Your task to perform on an android device: Search for corsair k70 on amazon.com, select the first entry, add it to the cart, then select checkout. Image 0: 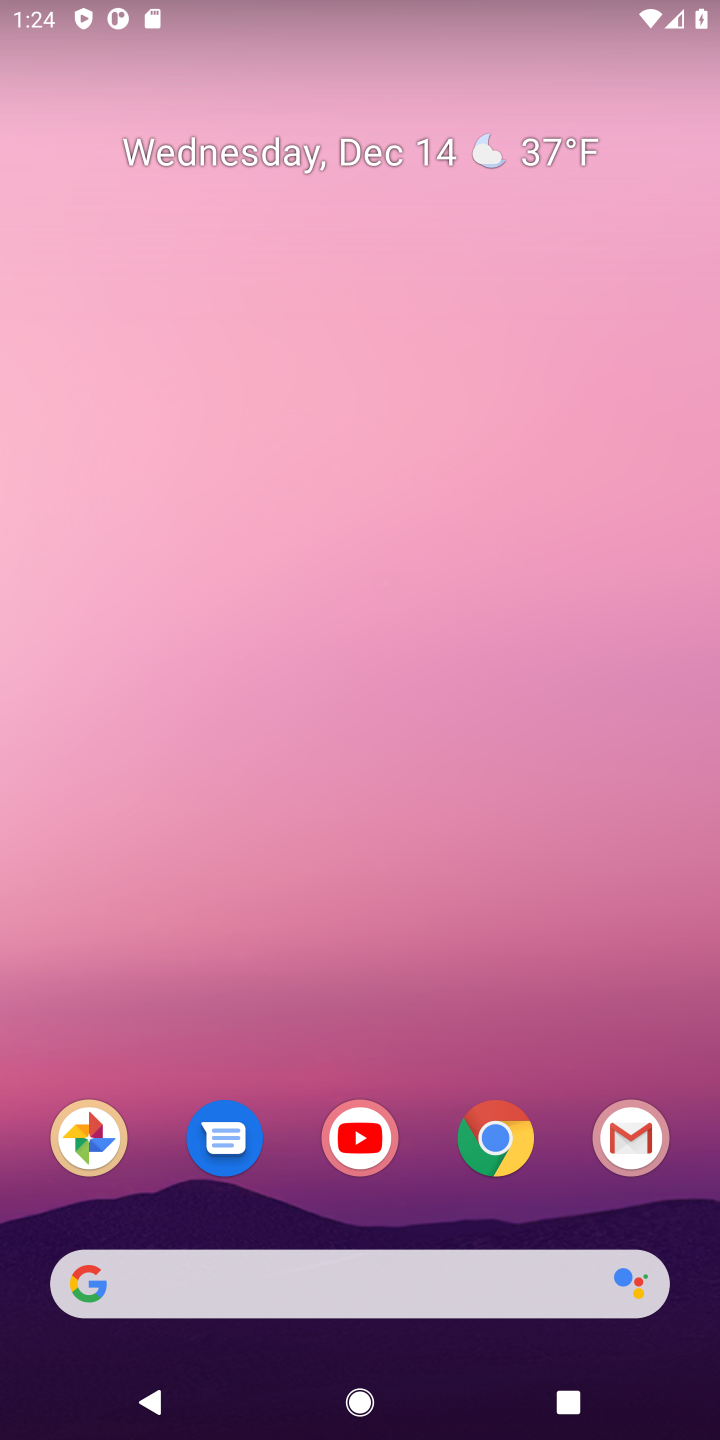
Step 0: click (498, 1142)
Your task to perform on an android device: Search for corsair k70 on amazon.com, select the first entry, add it to the cart, then select checkout. Image 1: 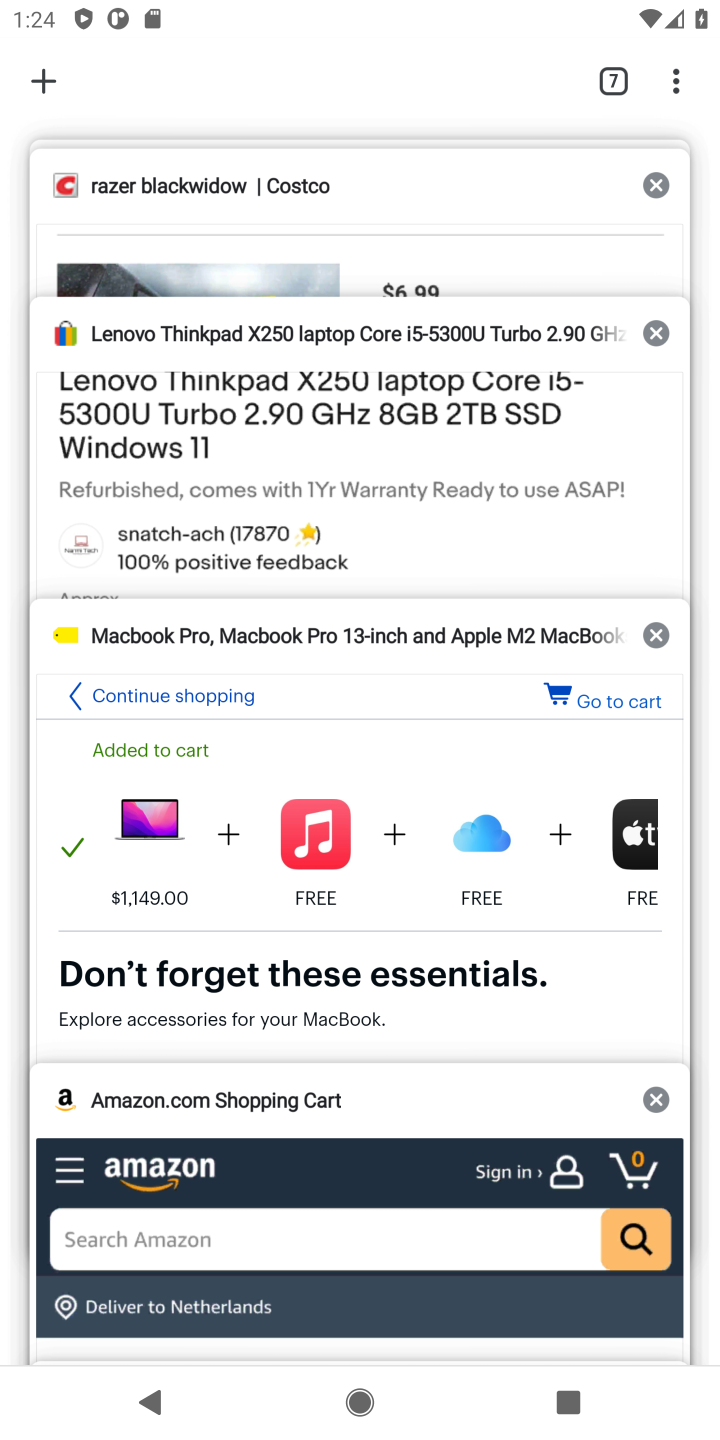
Step 1: click (402, 1208)
Your task to perform on an android device: Search for corsair k70 on amazon.com, select the first entry, add it to the cart, then select checkout. Image 2: 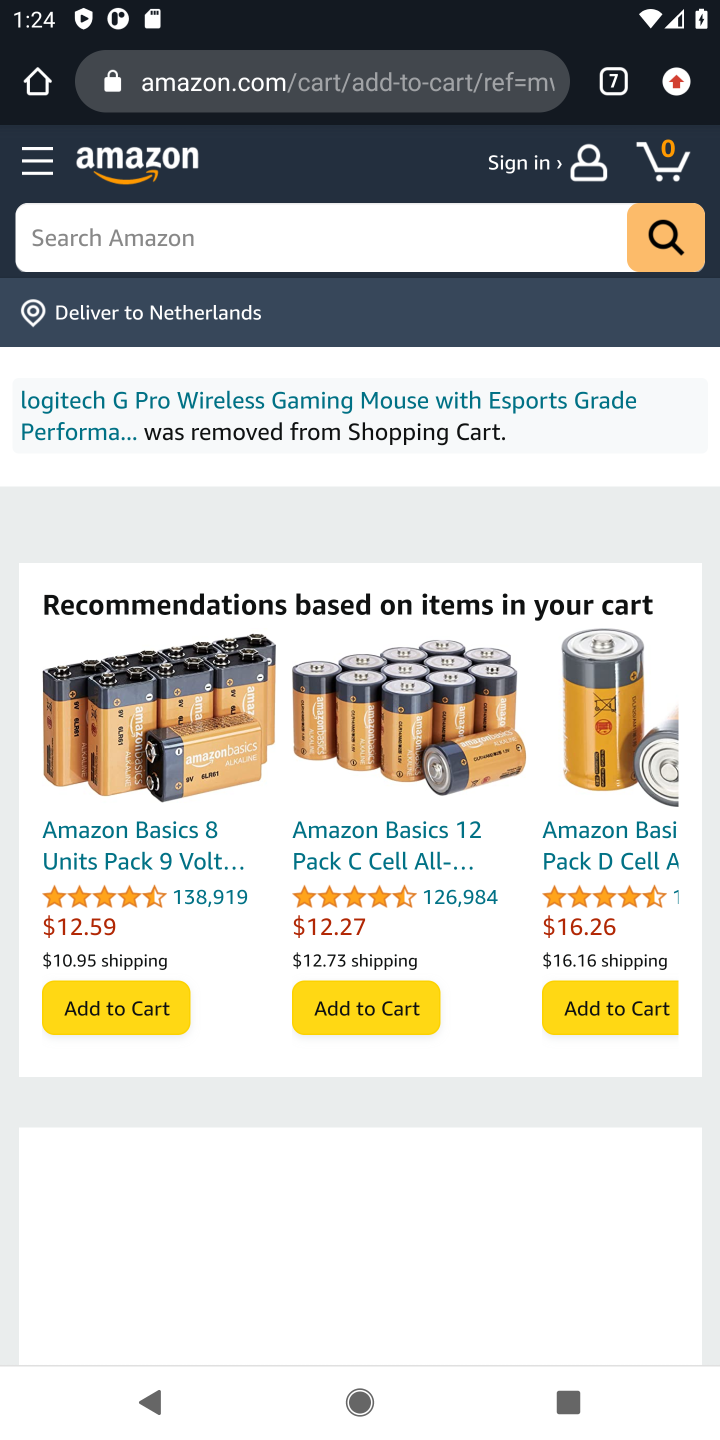
Step 2: click (85, 232)
Your task to perform on an android device: Search for corsair k70 on amazon.com, select the first entry, add it to the cart, then select checkout. Image 3: 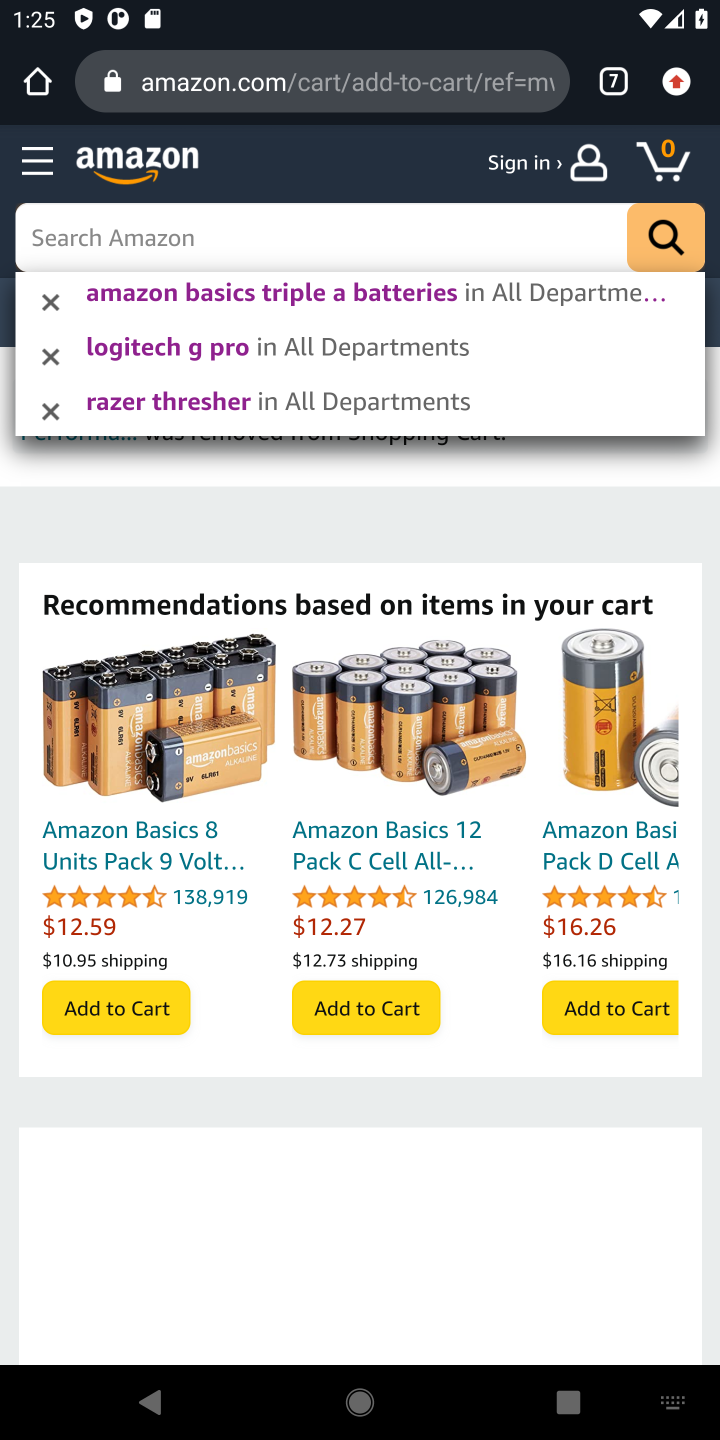
Step 3: type "corsair k70"
Your task to perform on an android device: Search for corsair k70 on amazon.com, select the first entry, add it to the cart, then select checkout. Image 4: 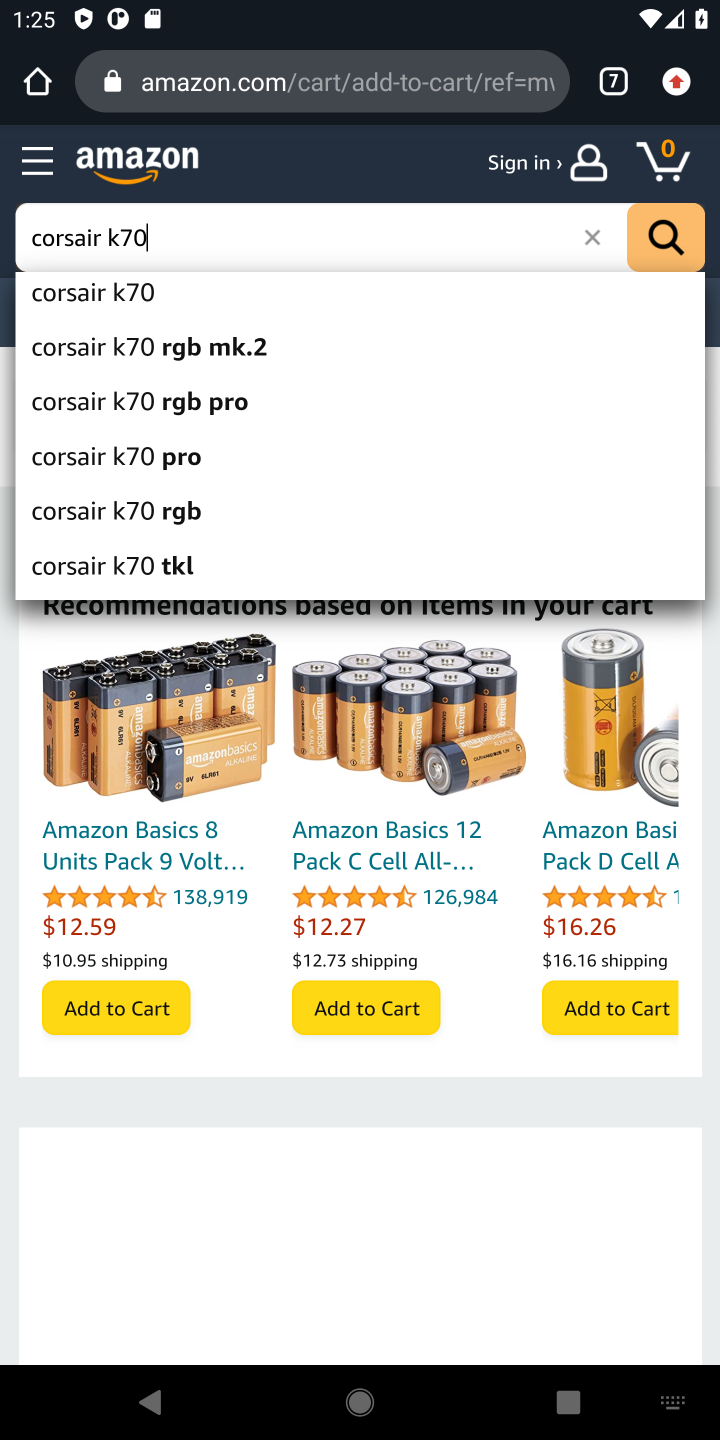
Step 4: click (128, 280)
Your task to perform on an android device: Search for corsair k70 on amazon.com, select the first entry, add it to the cart, then select checkout. Image 5: 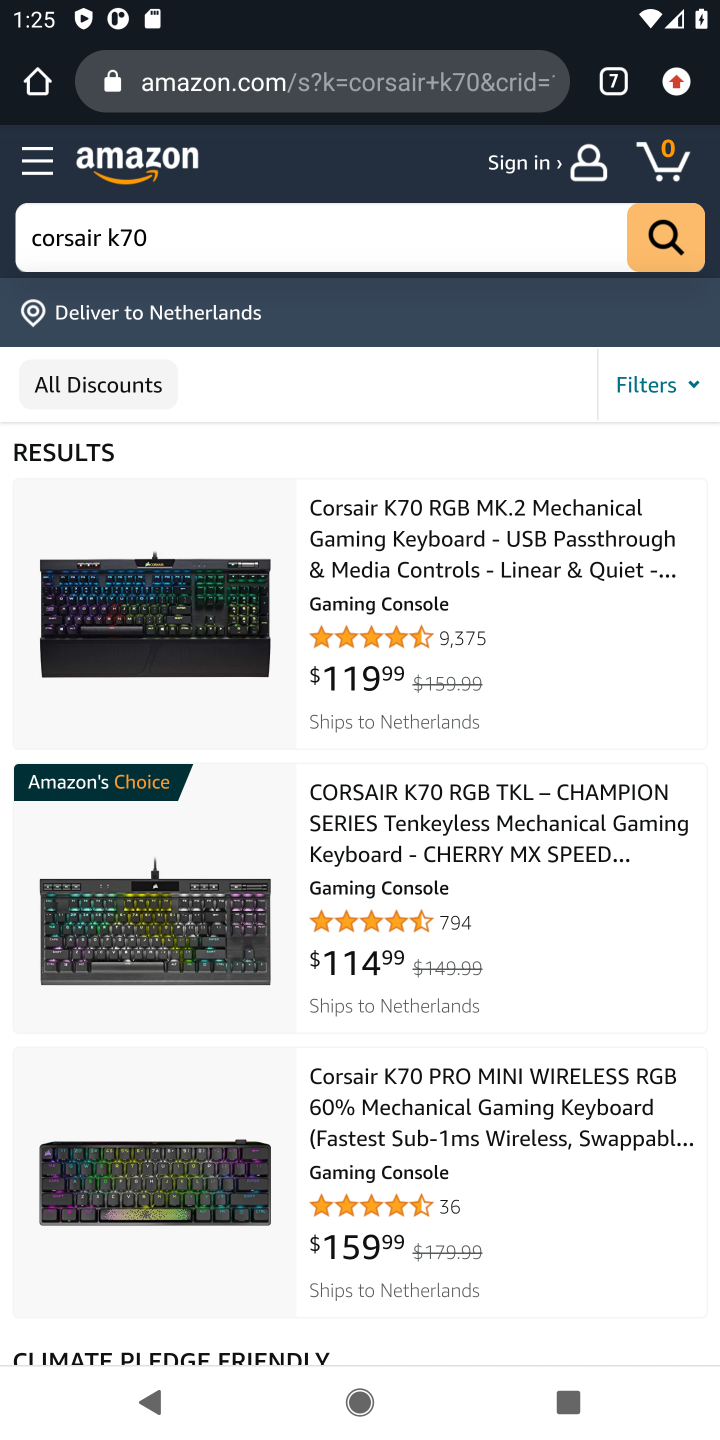
Step 5: click (477, 553)
Your task to perform on an android device: Search for corsair k70 on amazon.com, select the first entry, add it to the cart, then select checkout. Image 6: 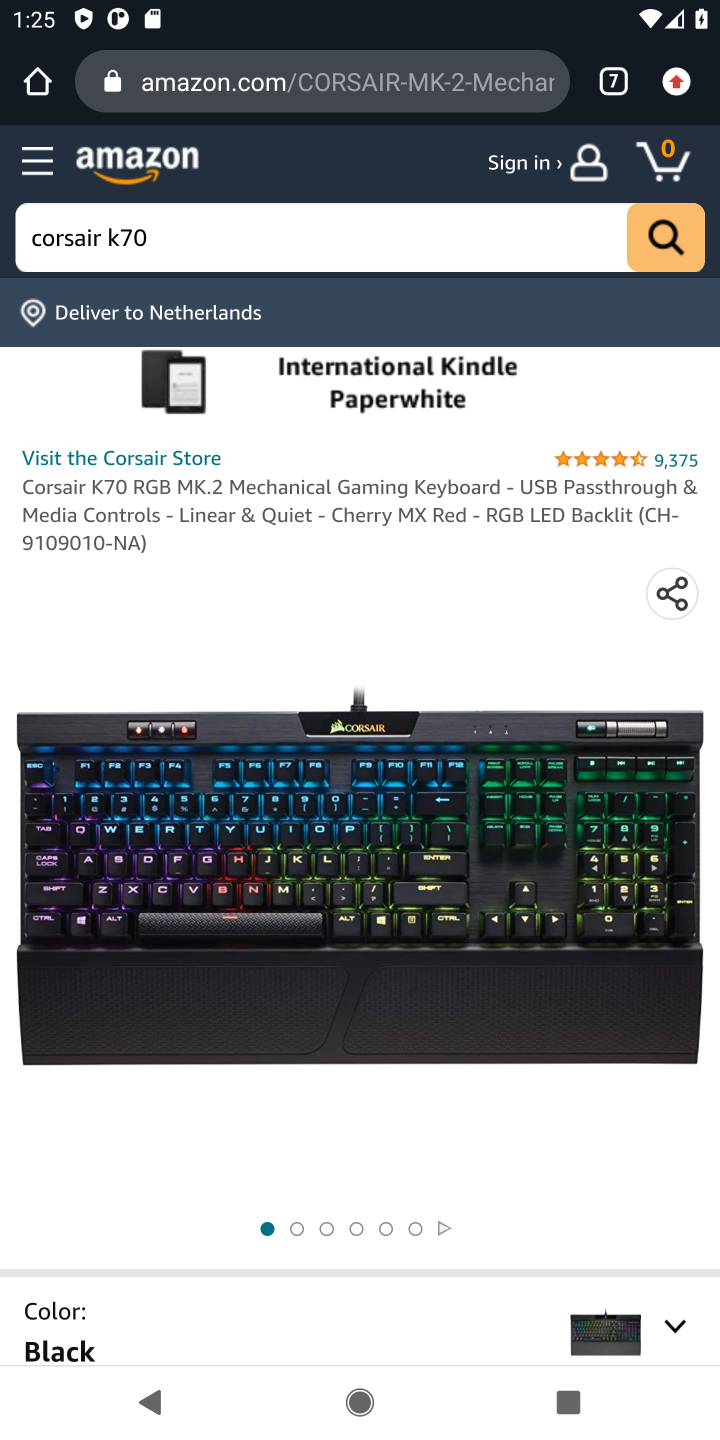
Step 6: drag from (547, 1173) to (498, 717)
Your task to perform on an android device: Search for corsair k70 on amazon.com, select the first entry, add it to the cart, then select checkout. Image 7: 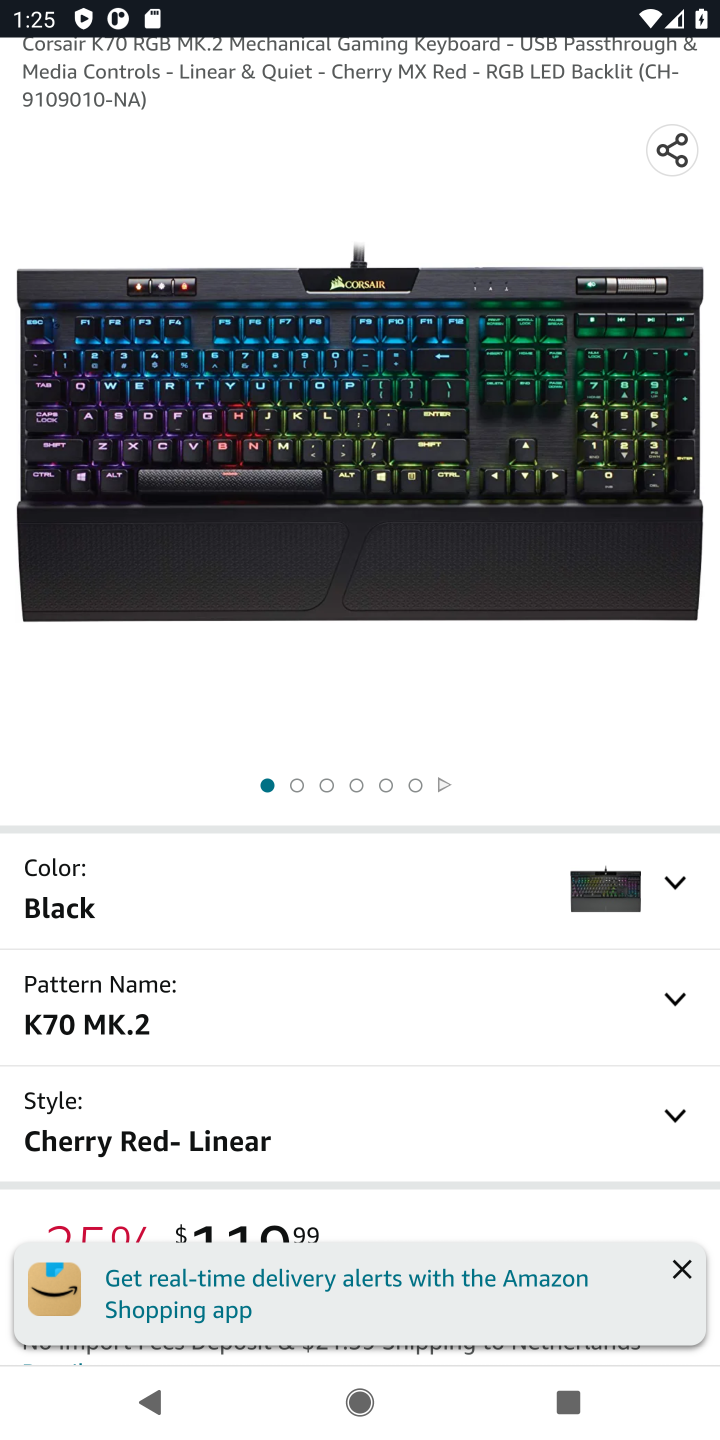
Step 7: drag from (389, 1030) to (428, 164)
Your task to perform on an android device: Search for corsair k70 on amazon.com, select the first entry, add it to the cart, then select checkout. Image 8: 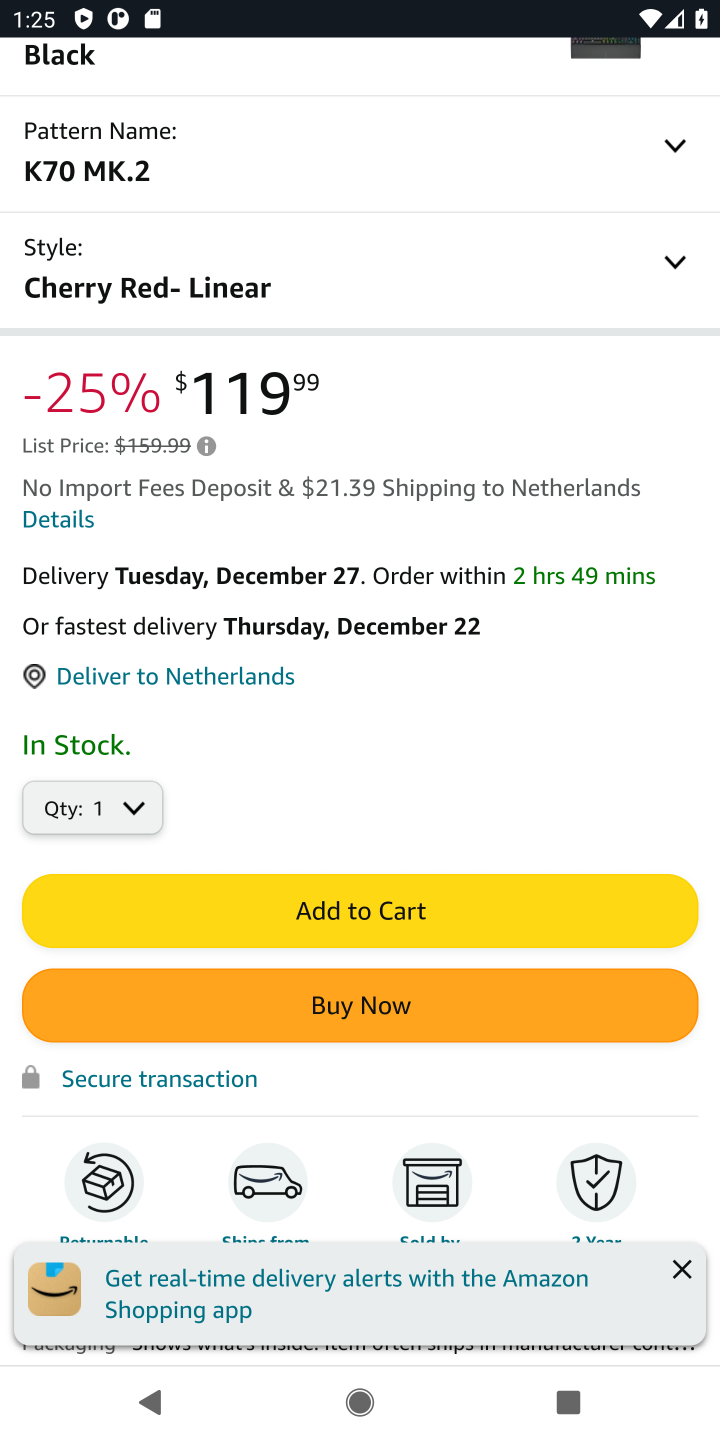
Step 8: click (336, 906)
Your task to perform on an android device: Search for corsair k70 on amazon.com, select the first entry, add it to the cart, then select checkout. Image 9: 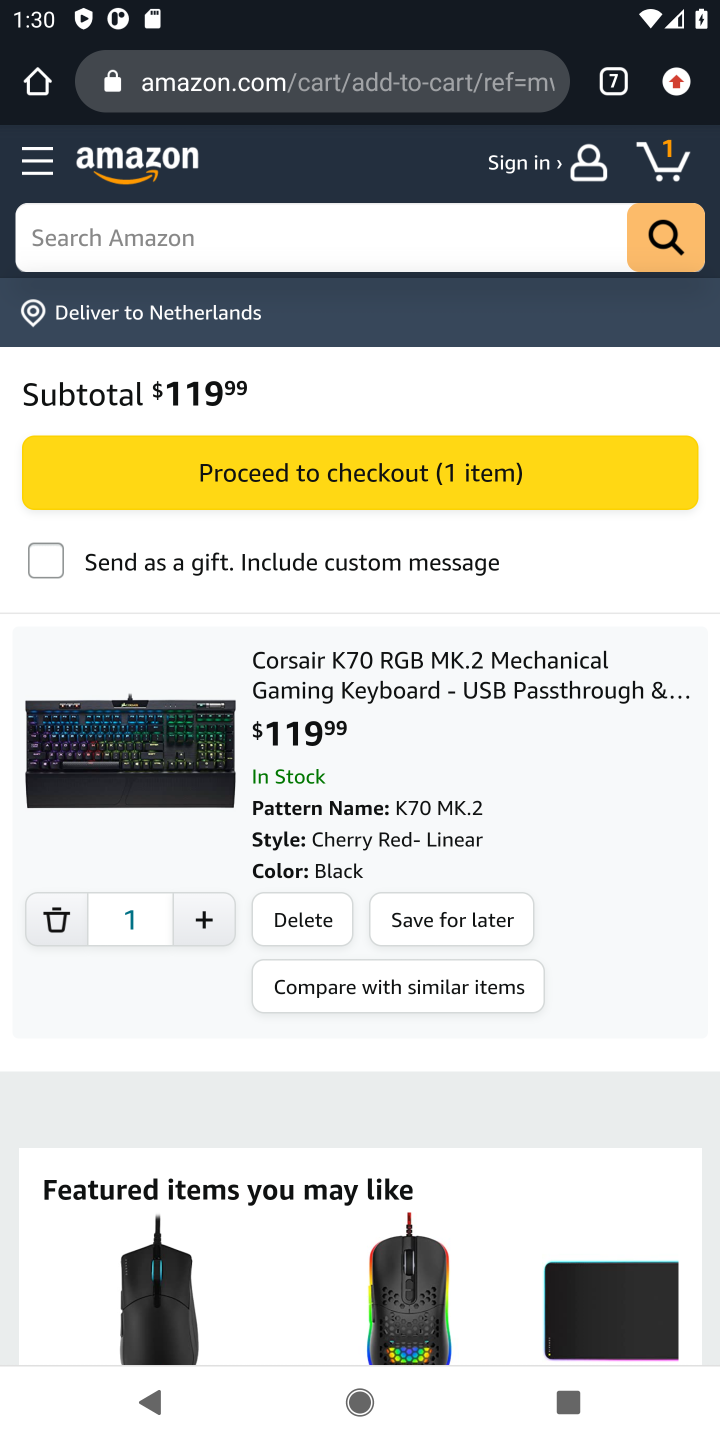
Step 9: task complete